Your task to perform on an android device: Open calendar and show me the third week of next month Image 0: 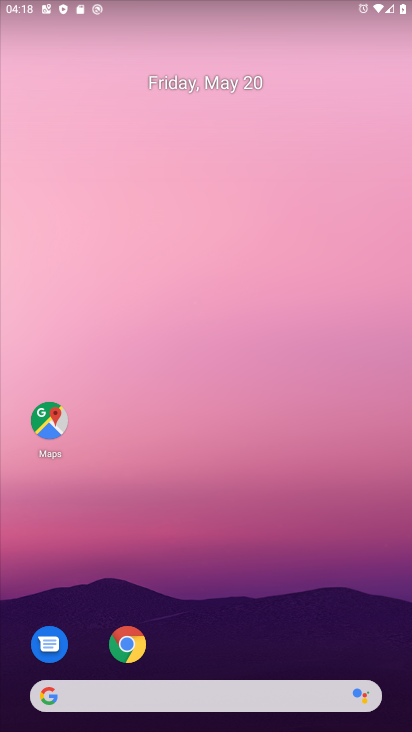
Step 0: drag from (297, 588) to (176, 122)
Your task to perform on an android device: Open calendar and show me the third week of next month Image 1: 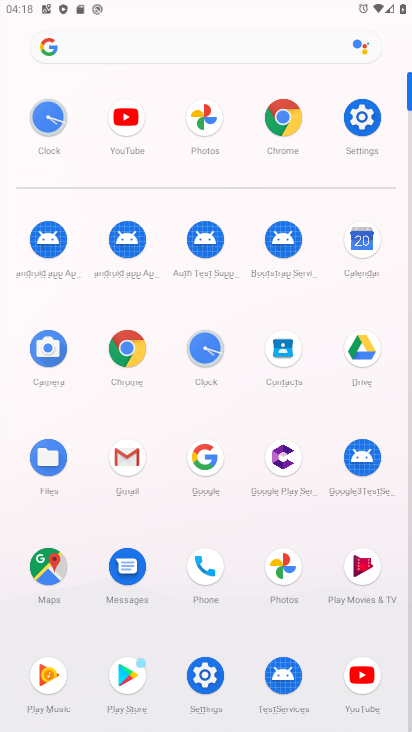
Step 1: click (358, 262)
Your task to perform on an android device: Open calendar and show me the third week of next month Image 2: 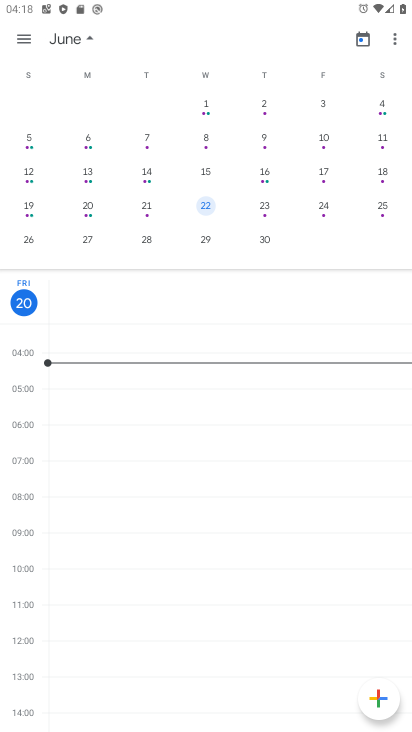
Step 2: task complete